Your task to perform on an android device: change alarm snooze length Image 0: 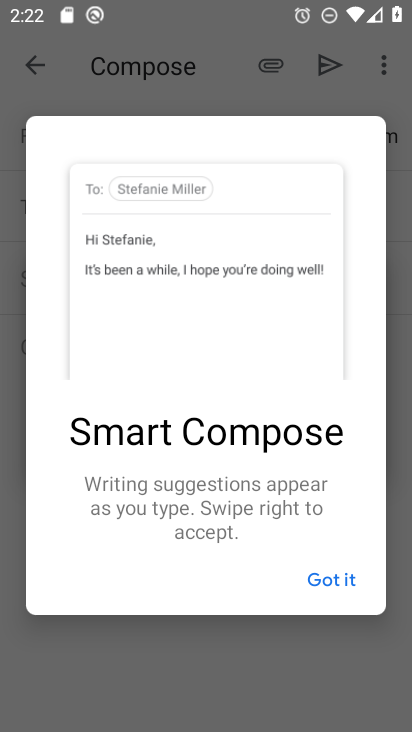
Step 0: press home button
Your task to perform on an android device: change alarm snooze length Image 1: 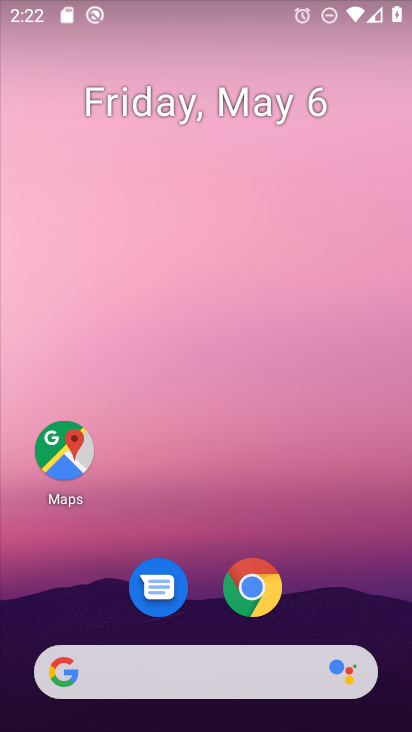
Step 1: drag from (316, 524) to (348, 52)
Your task to perform on an android device: change alarm snooze length Image 2: 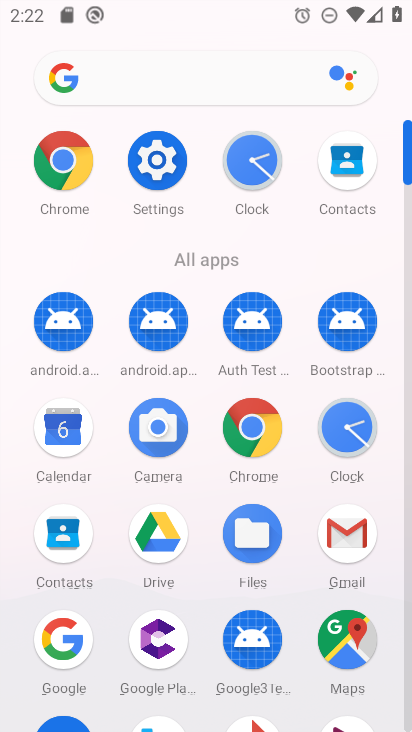
Step 2: click (252, 165)
Your task to perform on an android device: change alarm snooze length Image 3: 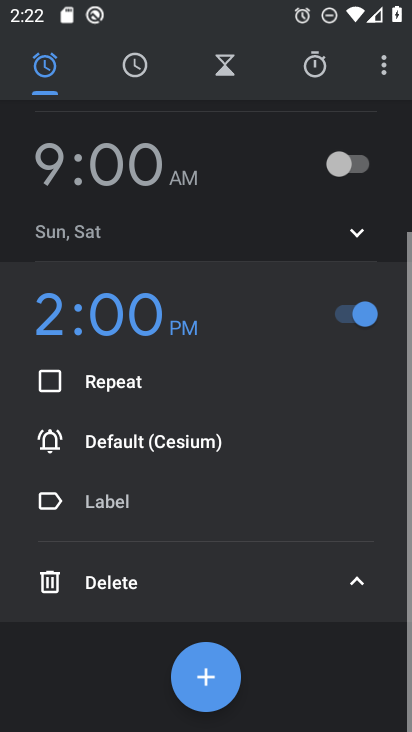
Step 3: click (378, 70)
Your task to perform on an android device: change alarm snooze length Image 4: 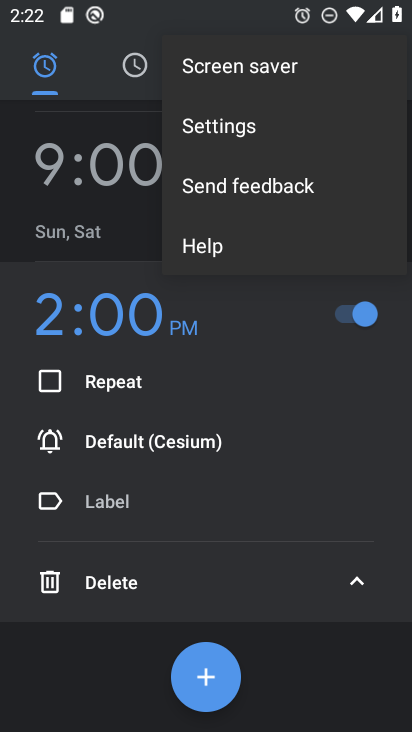
Step 4: click (315, 123)
Your task to perform on an android device: change alarm snooze length Image 5: 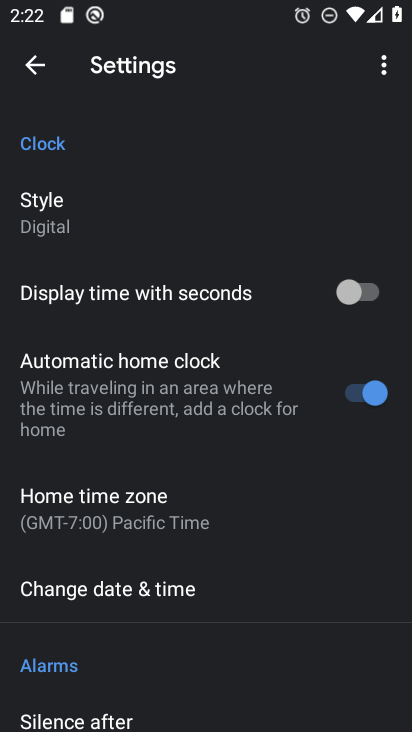
Step 5: drag from (198, 552) to (251, 158)
Your task to perform on an android device: change alarm snooze length Image 6: 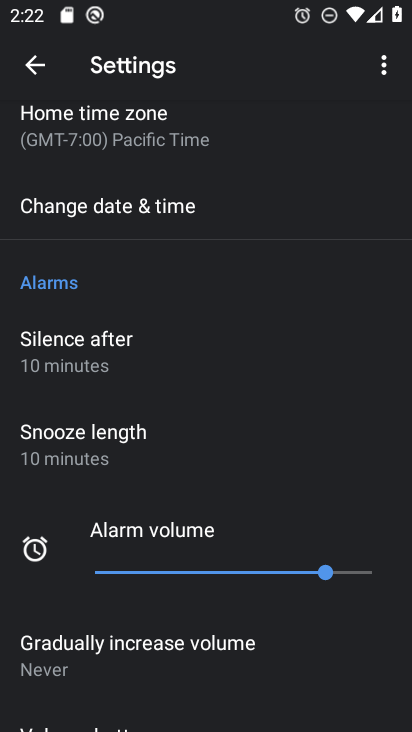
Step 6: click (141, 438)
Your task to perform on an android device: change alarm snooze length Image 7: 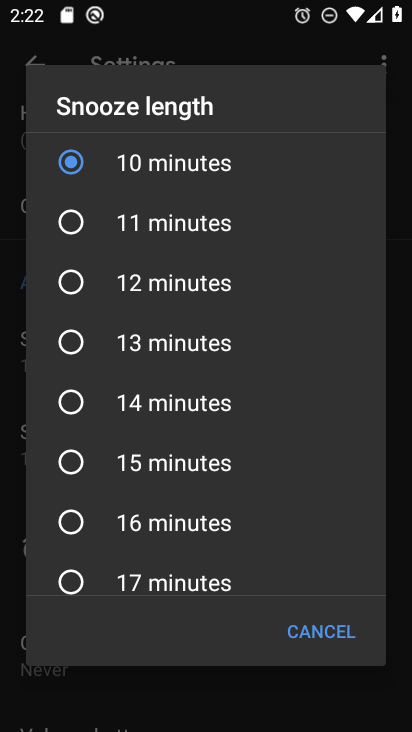
Step 7: click (70, 228)
Your task to perform on an android device: change alarm snooze length Image 8: 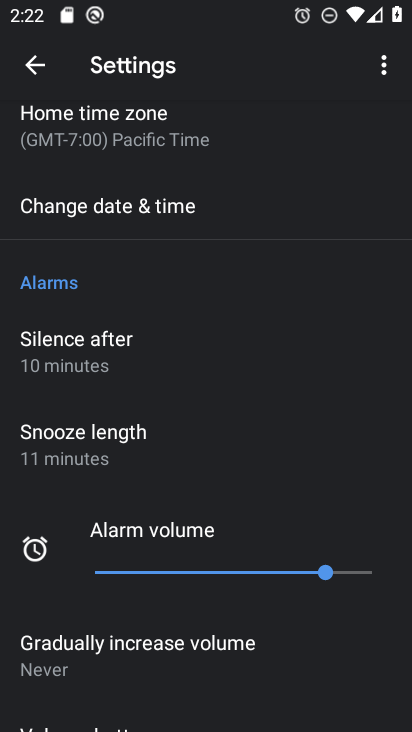
Step 8: task complete